Your task to perform on an android device: turn off location history Image 0: 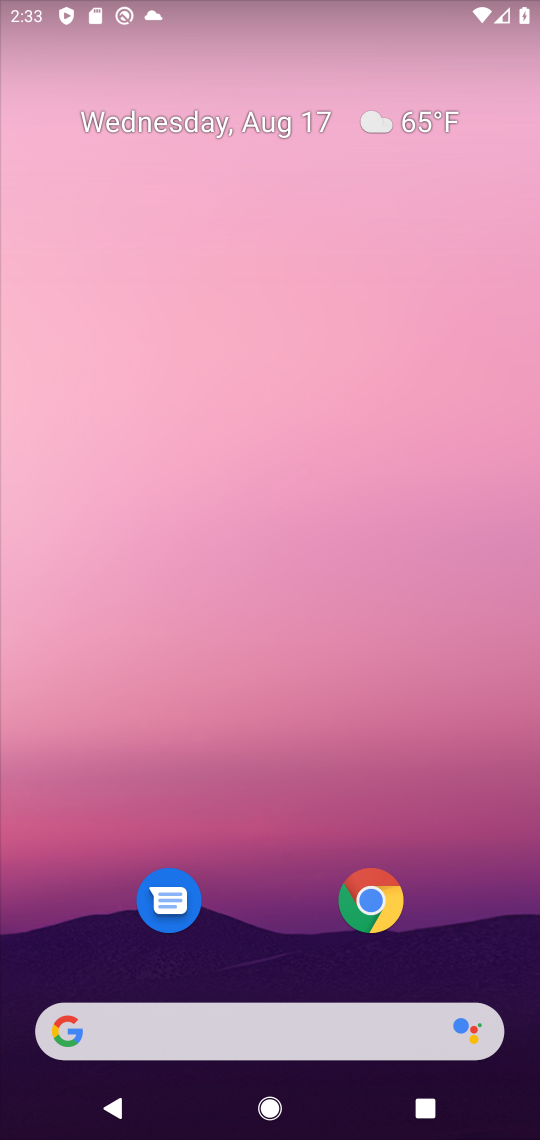
Step 0: press home button
Your task to perform on an android device: turn off location history Image 1: 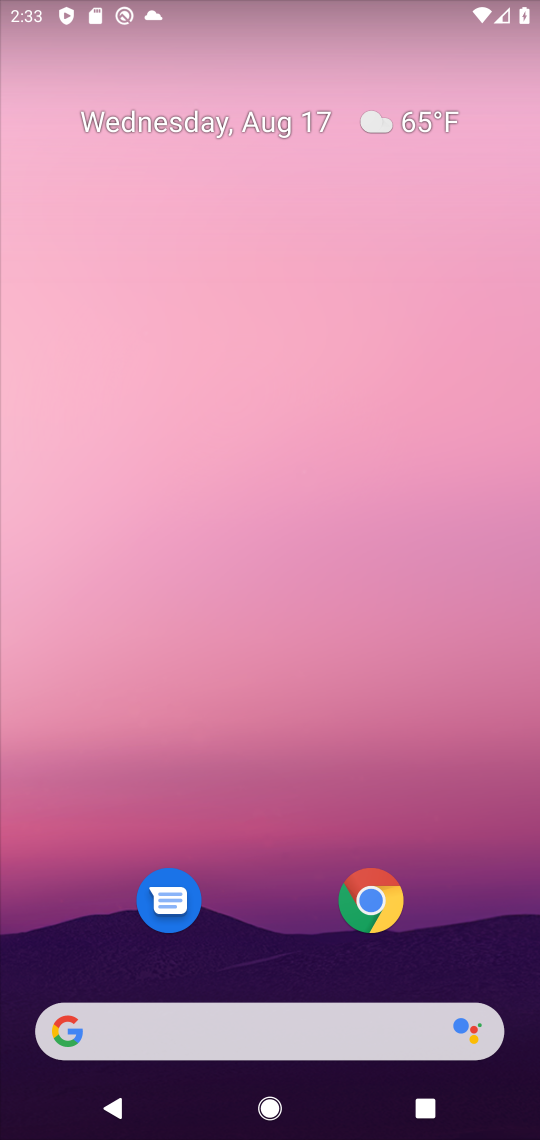
Step 1: press home button
Your task to perform on an android device: turn off location history Image 2: 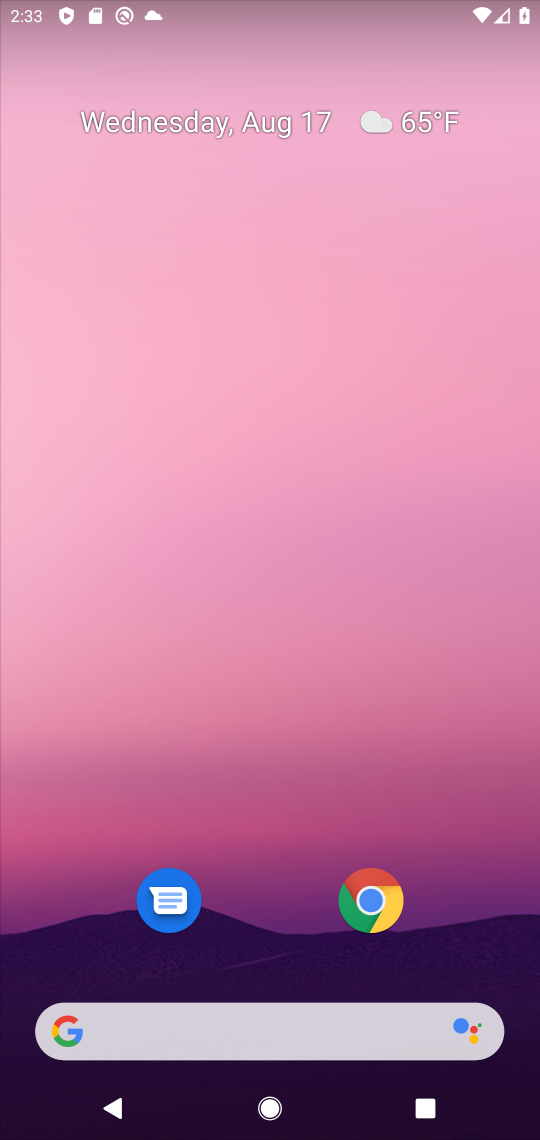
Step 2: drag from (261, 1003) to (391, 262)
Your task to perform on an android device: turn off location history Image 3: 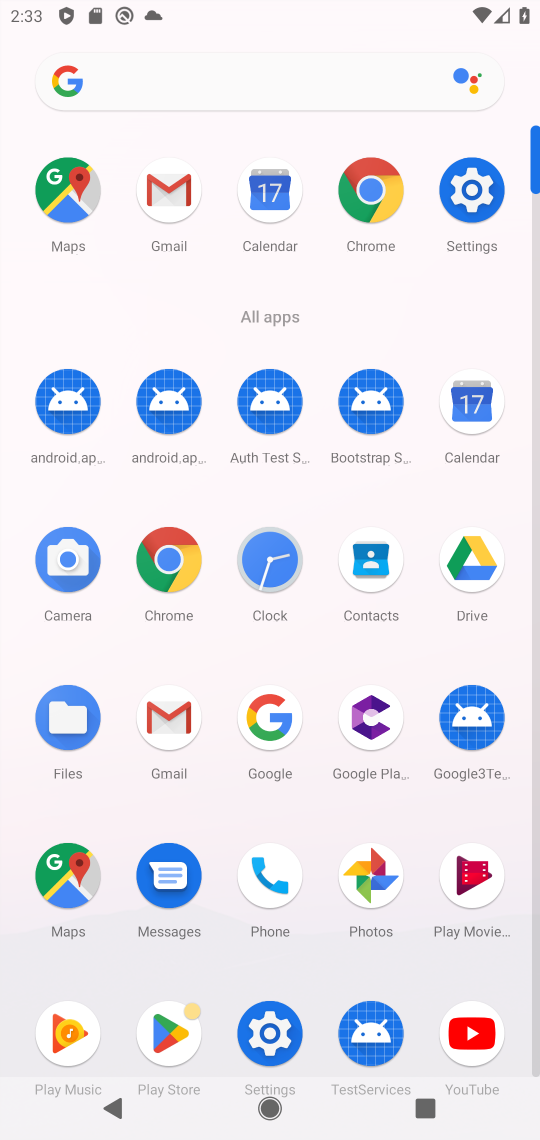
Step 3: click (73, 188)
Your task to perform on an android device: turn off location history Image 4: 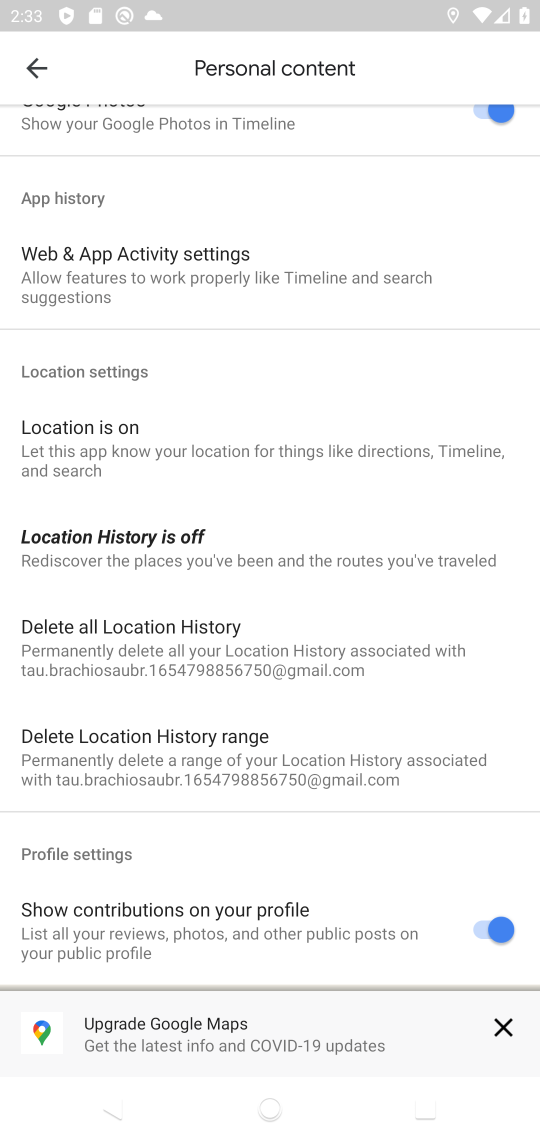
Step 4: click (149, 542)
Your task to perform on an android device: turn off location history Image 5: 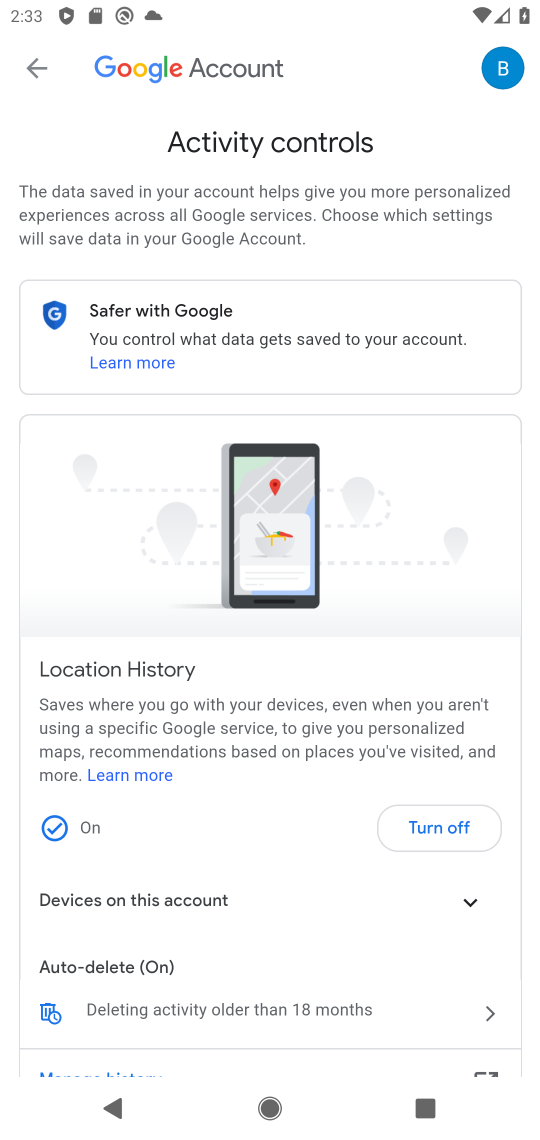
Step 5: click (425, 832)
Your task to perform on an android device: turn off location history Image 6: 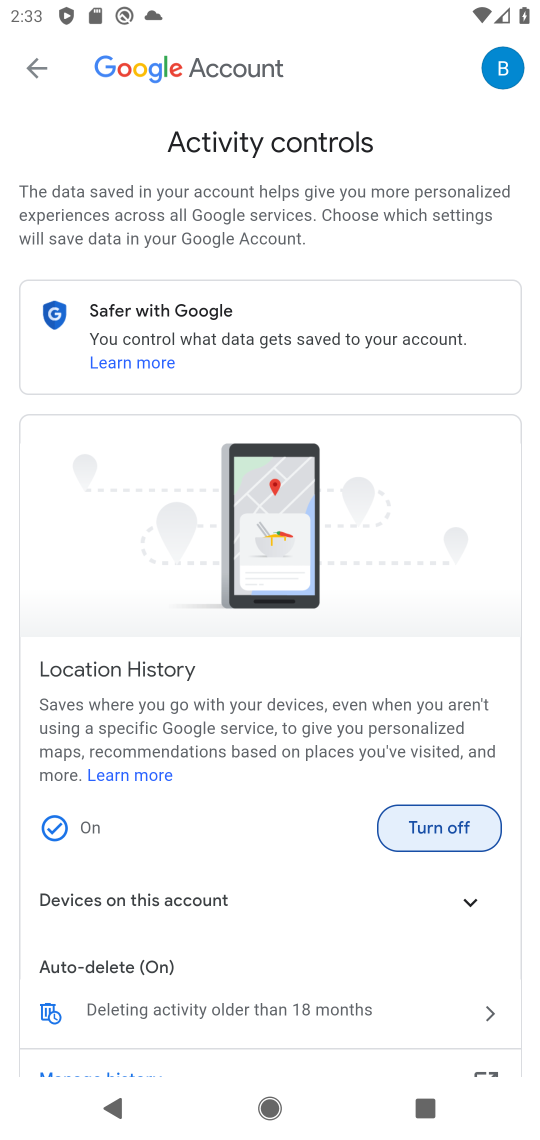
Step 6: click (425, 830)
Your task to perform on an android device: turn off location history Image 7: 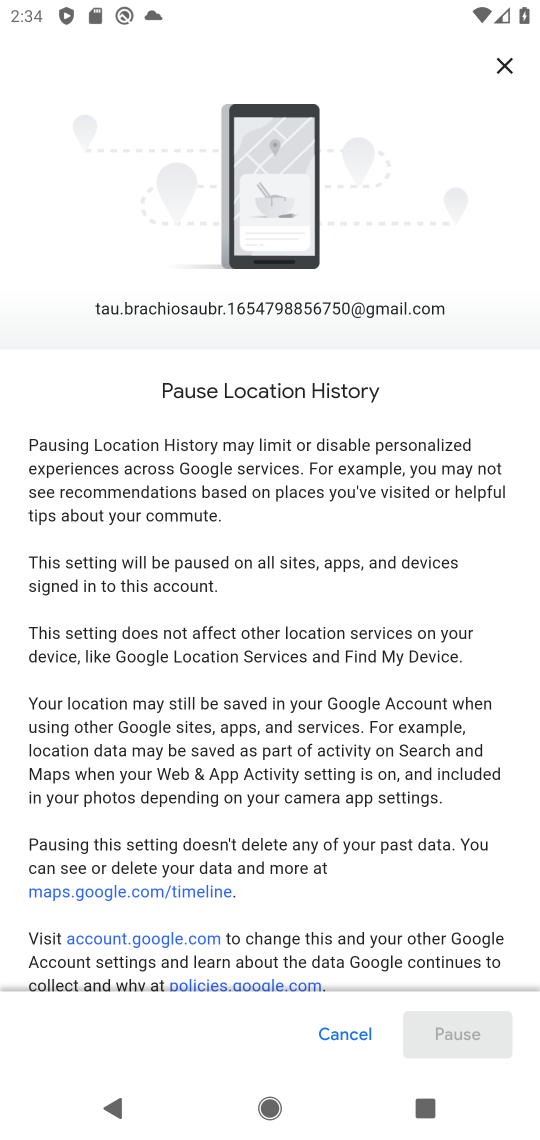
Step 7: drag from (350, 763) to (460, 157)
Your task to perform on an android device: turn off location history Image 8: 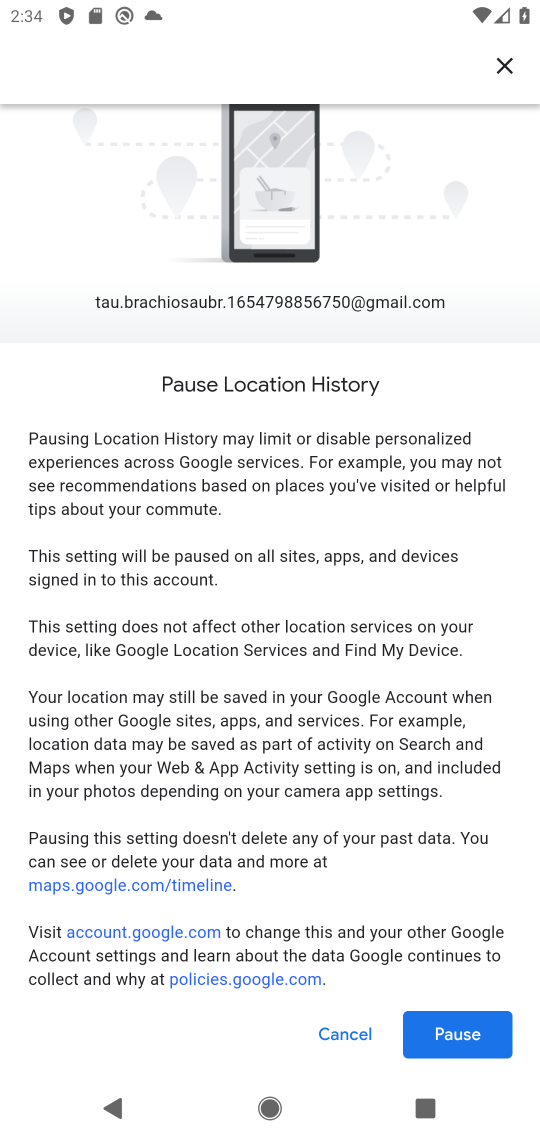
Step 8: click (457, 1039)
Your task to perform on an android device: turn off location history Image 9: 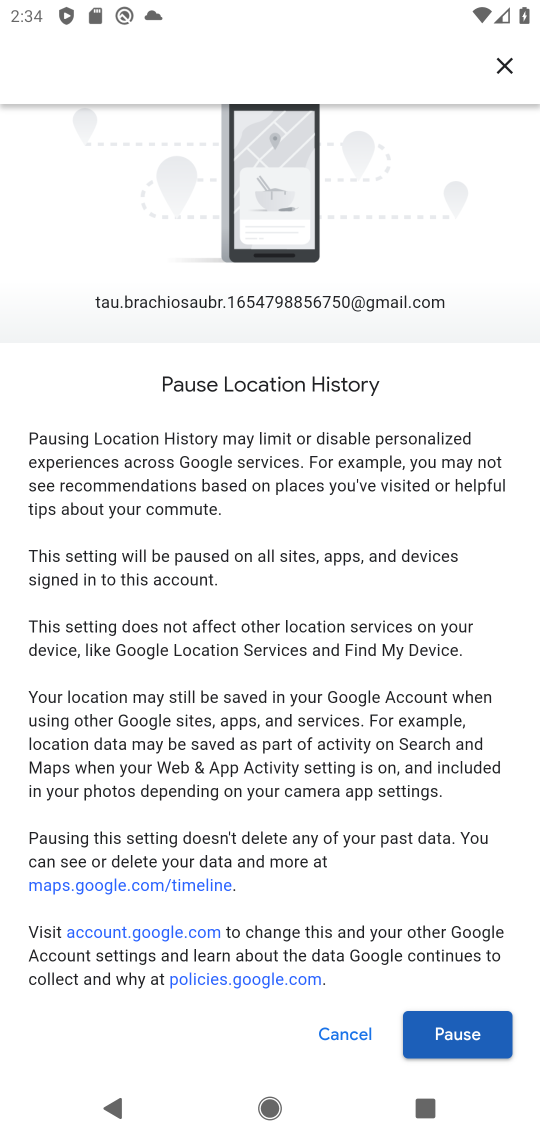
Step 9: click (460, 1041)
Your task to perform on an android device: turn off location history Image 10: 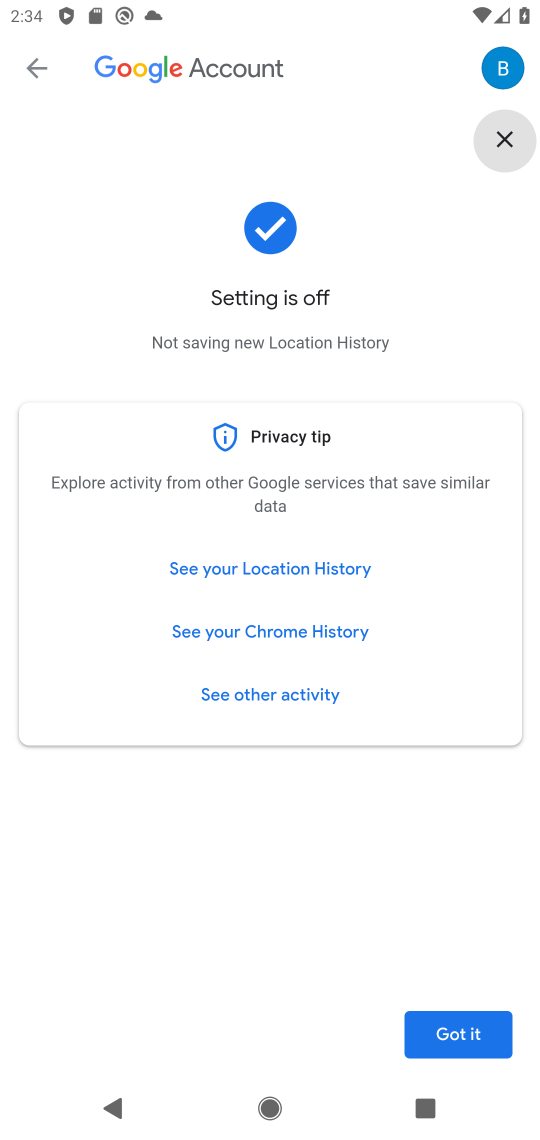
Step 10: click (460, 1034)
Your task to perform on an android device: turn off location history Image 11: 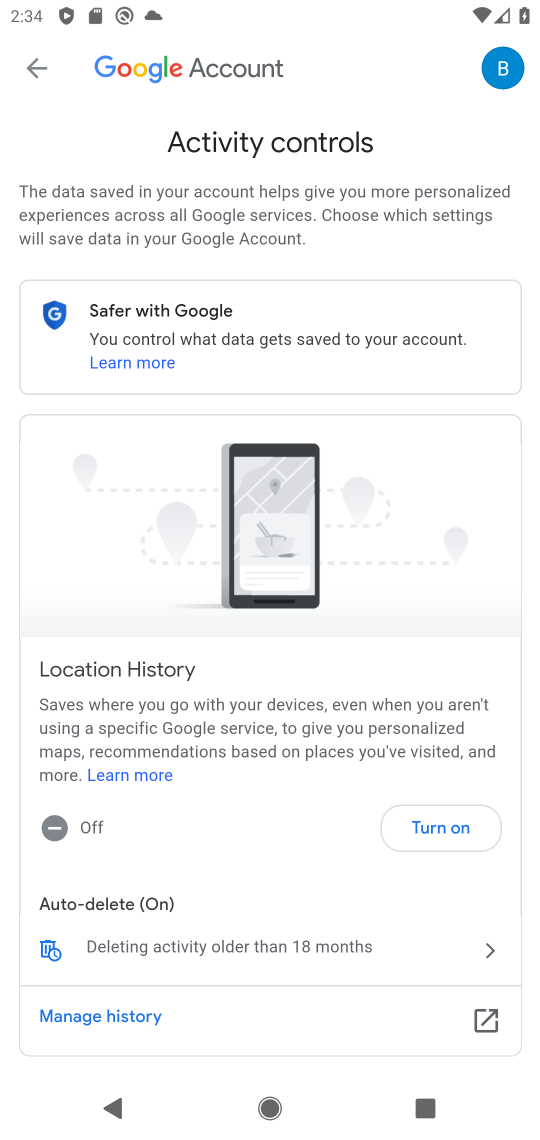
Step 11: task complete